Your task to perform on an android device: turn off picture-in-picture Image 0: 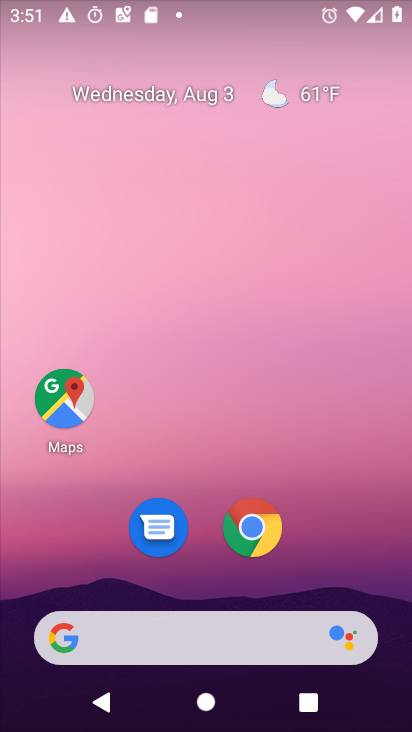
Step 0: click (252, 523)
Your task to perform on an android device: turn off picture-in-picture Image 1: 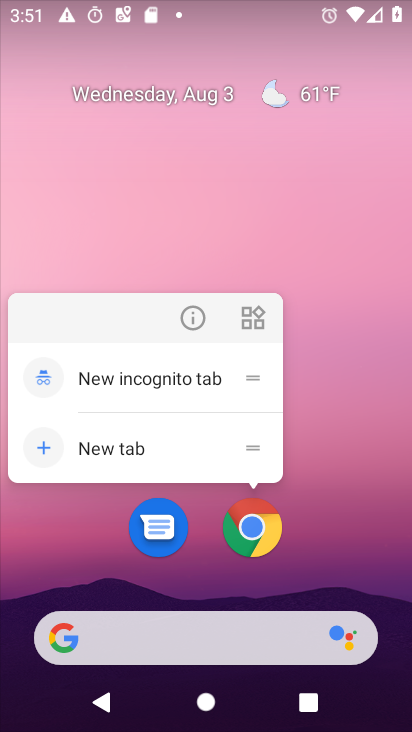
Step 1: click (189, 310)
Your task to perform on an android device: turn off picture-in-picture Image 2: 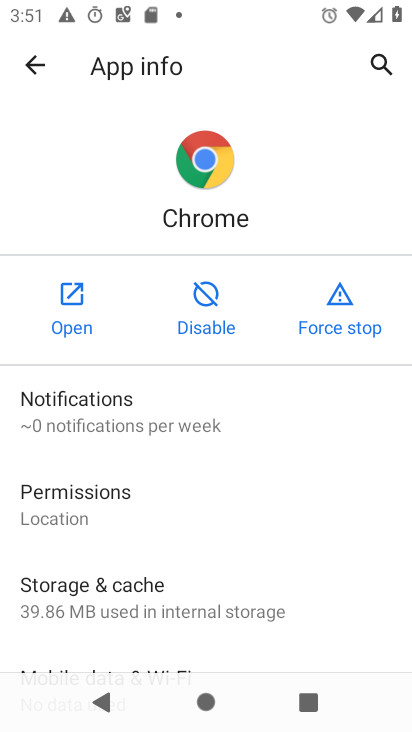
Step 2: drag from (318, 549) to (267, 13)
Your task to perform on an android device: turn off picture-in-picture Image 3: 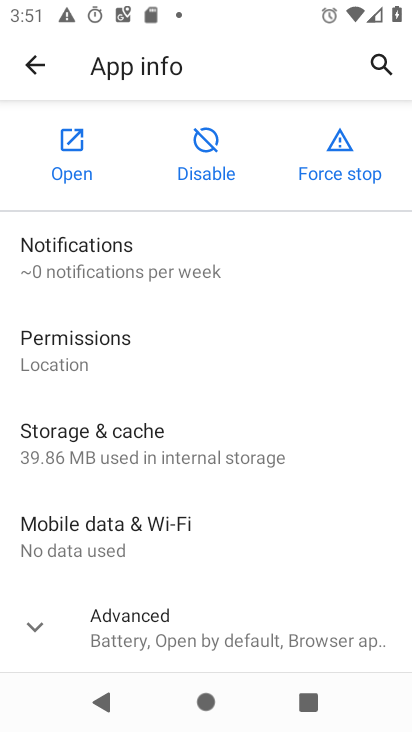
Step 3: click (130, 616)
Your task to perform on an android device: turn off picture-in-picture Image 4: 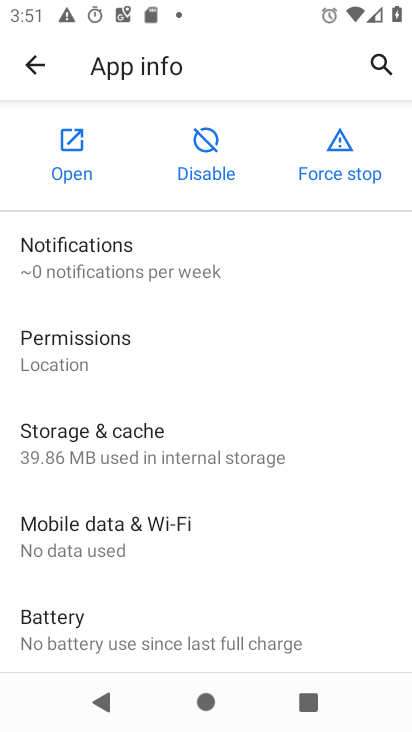
Step 4: drag from (353, 632) to (381, 197)
Your task to perform on an android device: turn off picture-in-picture Image 5: 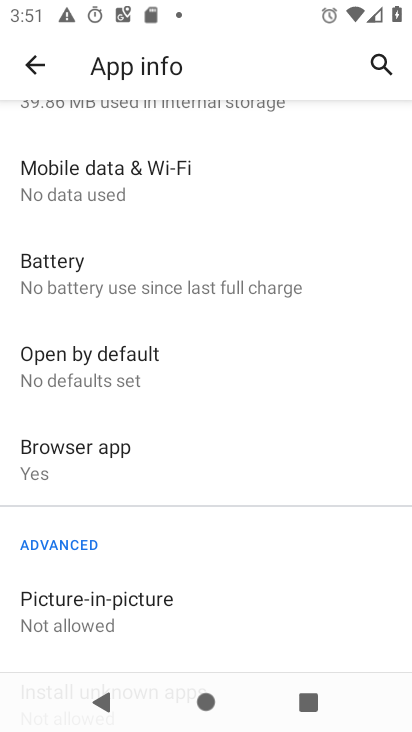
Step 5: drag from (299, 620) to (339, 318)
Your task to perform on an android device: turn off picture-in-picture Image 6: 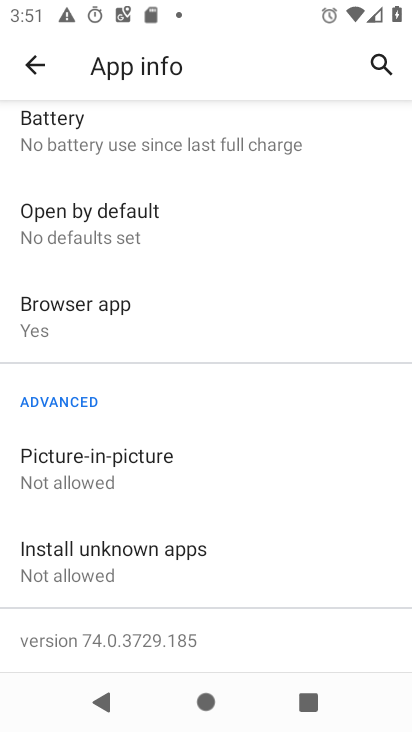
Step 6: click (152, 467)
Your task to perform on an android device: turn off picture-in-picture Image 7: 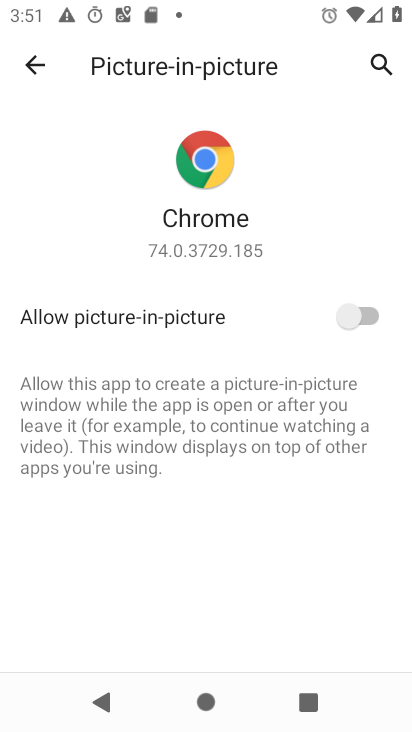
Step 7: task complete